Your task to perform on an android device: find photos in the google photos app Image 0: 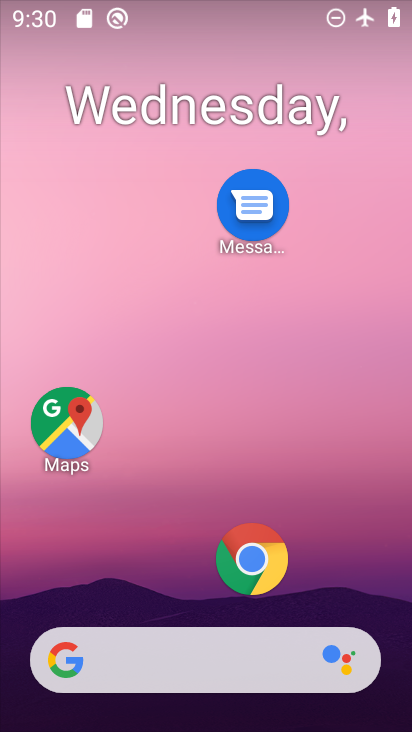
Step 0: drag from (184, 618) to (255, 279)
Your task to perform on an android device: find photos in the google photos app Image 1: 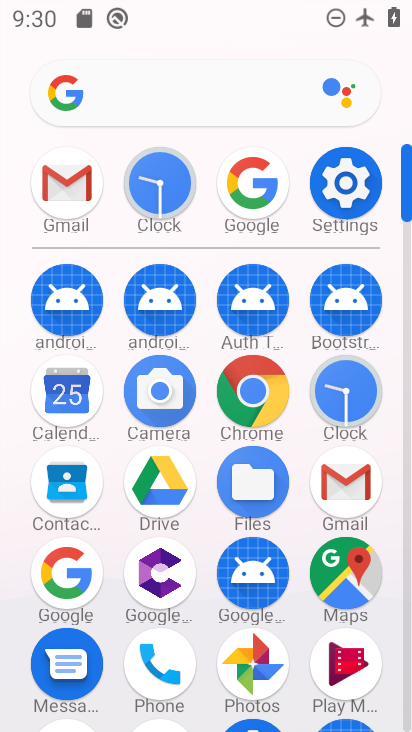
Step 1: drag from (209, 549) to (262, 367)
Your task to perform on an android device: find photos in the google photos app Image 2: 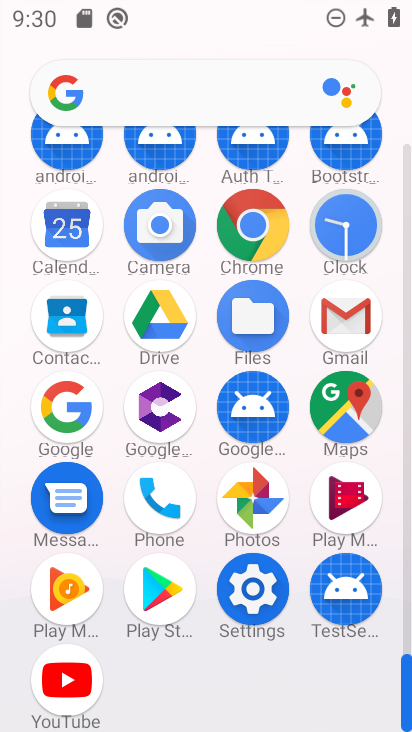
Step 2: click (248, 514)
Your task to perform on an android device: find photos in the google photos app Image 3: 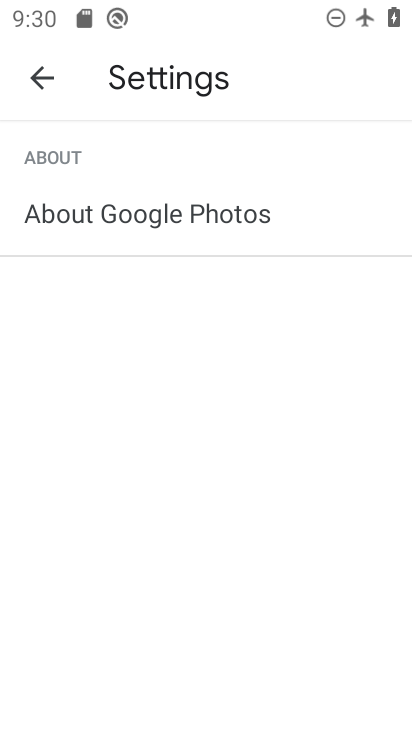
Step 3: click (53, 95)
Your task to perform on an android device: find photos in the google photos app Image 4: 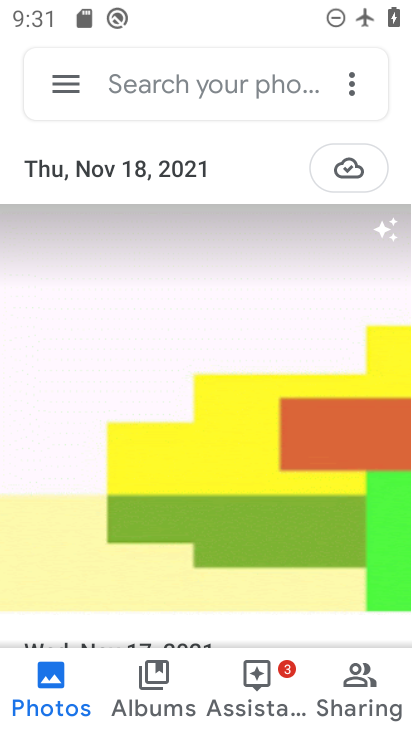
Step 4: task complete